Your task to perform on an android device: Go to network settings Image 0: 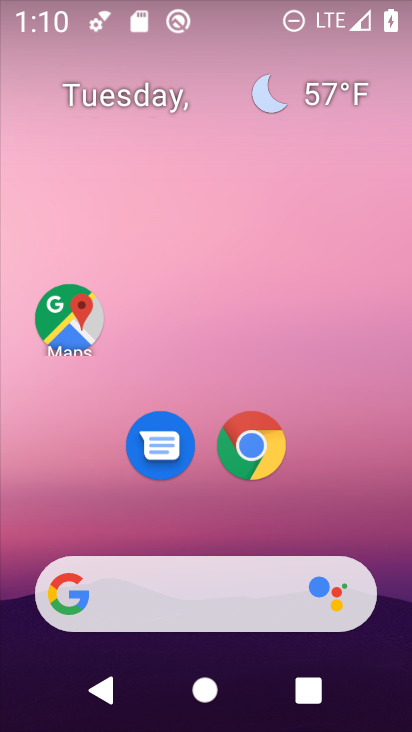
Step 0: drag from (386, 552) to (381, 218)
Your task to perform on an android device: Go to network settings Image 1: 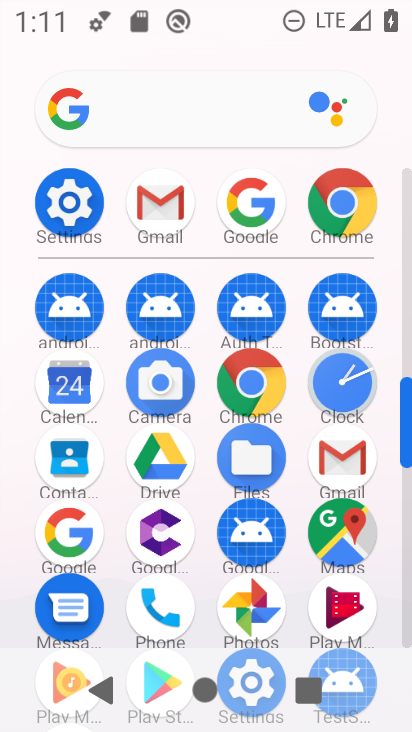
Step 1: drag from (378, 608) to (392, 332)
Your task to perform on an android device: Go to network settings Image 2: 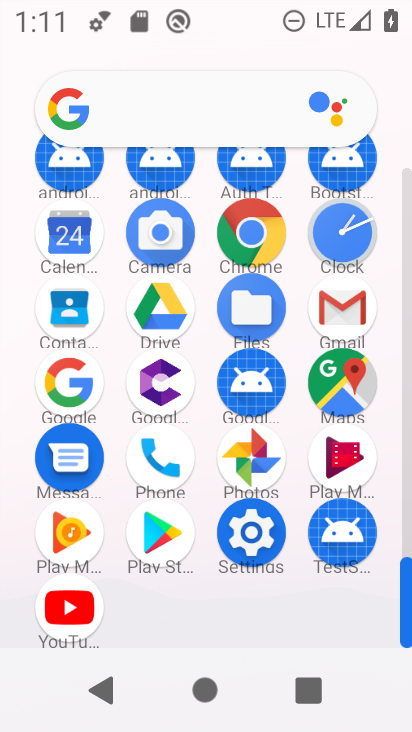
Step 2: click (247, 546)
Your task to perform on an android device: Go to network settings Image 3: 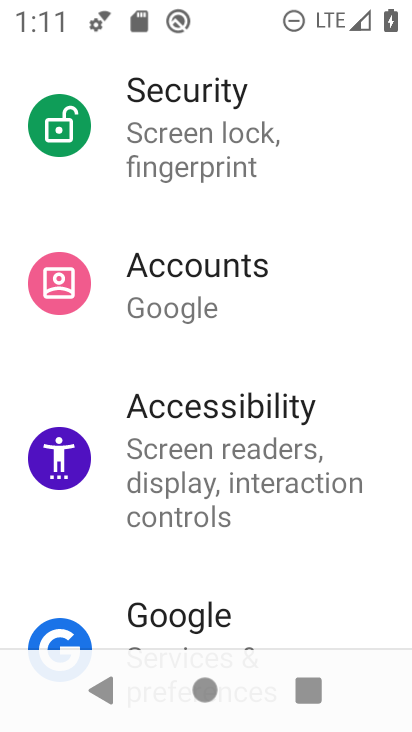
Step 3: drag from (340, 344) to (349, 441)
Your task to perform on an android device: Go to network settings Image 4: 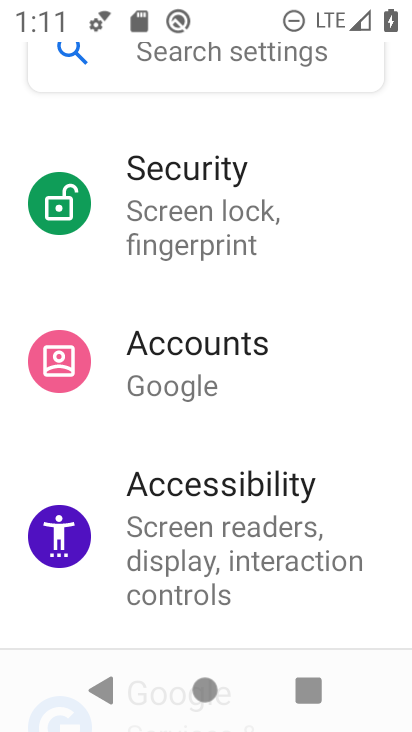
Step 4: drag from (336, 287) to (348, 423)
Your task to perform on an android device: Go to network settings Image 5: 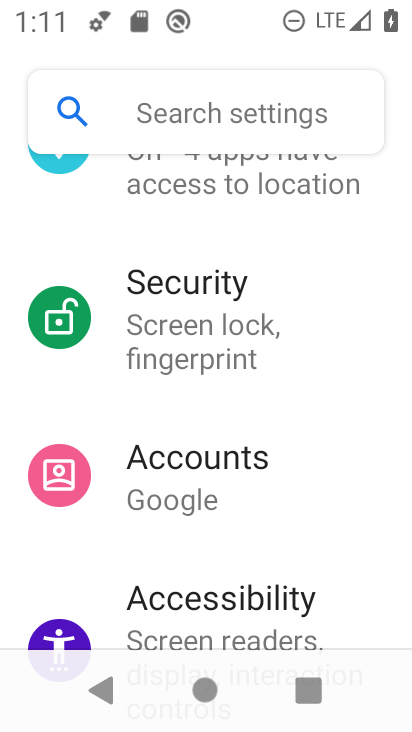
Step 5: drag from (361, 261) to (366, 358)
Your task to perform on an android device: Go to network settings Image 6: 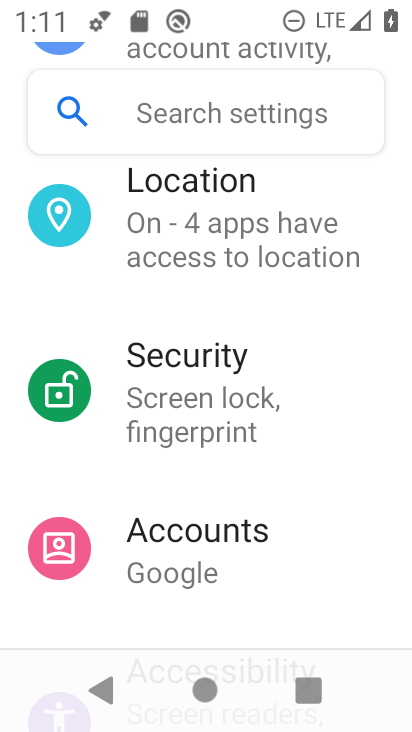
Step 6: drag from (376, 227) to (368, 352)
Your task to perform on an android device: Go to network settings Image 7: 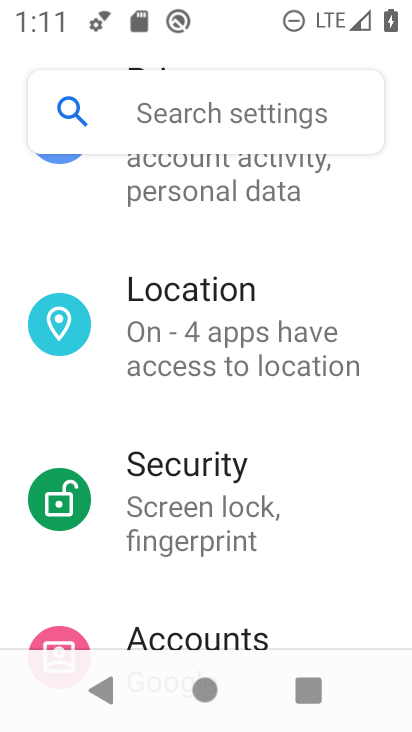
Step 7: drag from (365, 223) to (362, 347)
Your task to perform on an android device: Go to network settings Image 8: 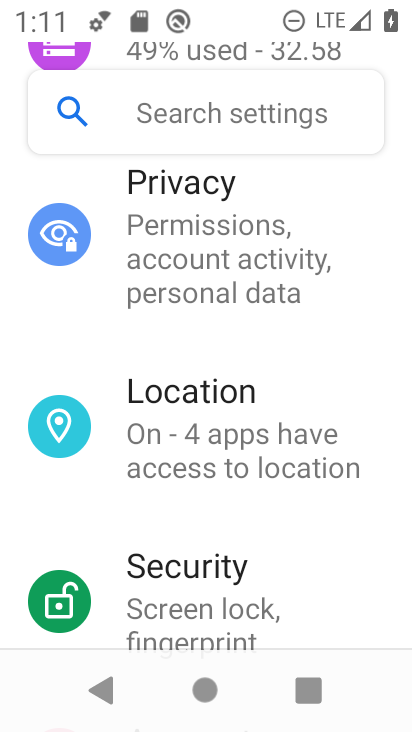
Step 8: drag from (366, 211) to (363, 335)
Your task to perform on an android device: Go to network settings Image 9: 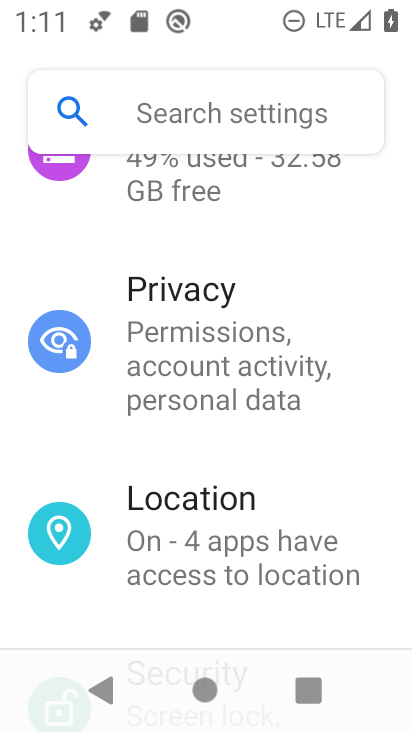
Step 9: drag from (357, 207) to (349, 331)
Your task to perform on an android device: Go to network settings Image 10: 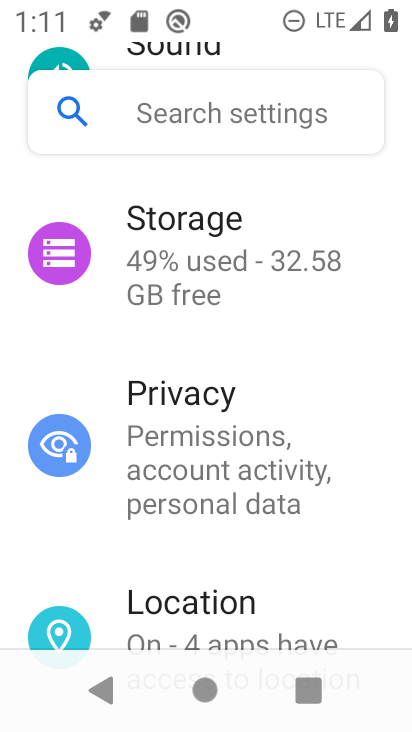
Step 10: drag from (357, 197) to (371, 323)
Your task to perform on an android device: Go to network settings Image 11: 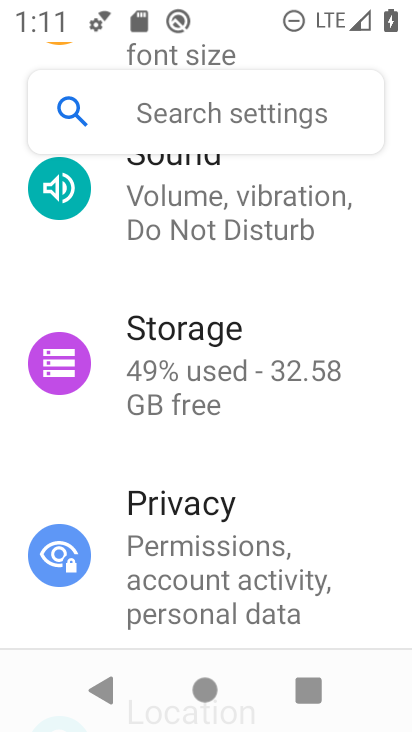
Step 11: drag from (379, 190) to (360, 327)
Your task to perform on an android device: Go to network settings Image 12: 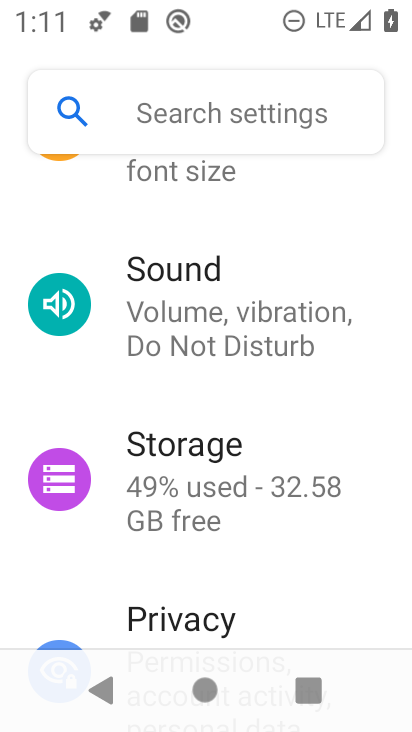
Step 12: drag from (359, 174) to (374, 314)
Your task to perform on an android device: Go to network settings Image 13: 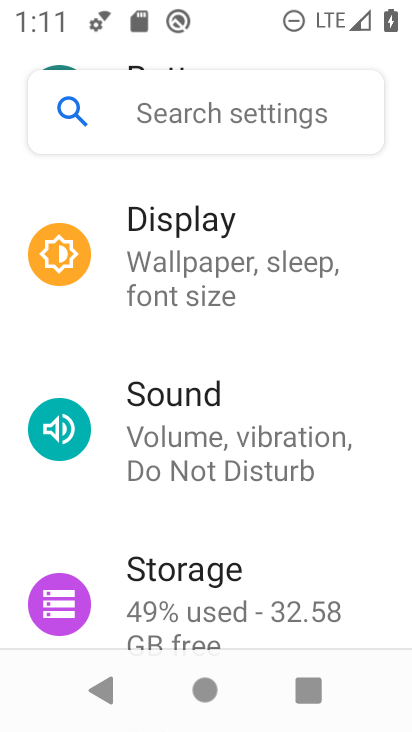
Step 13: drag from (385, 165) to (362, 290)
Your task to perform on an android device: Go to network settings Image 14: 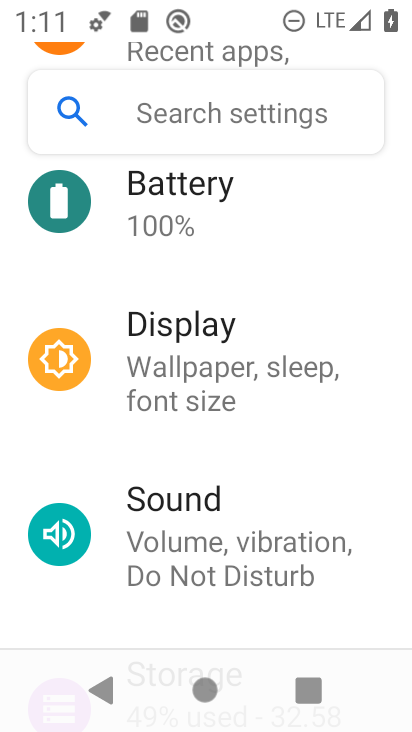
Step 14: drag from (353, 196) to (354, 319)
Your task to perform on an android device: Go to network settings Image 15: 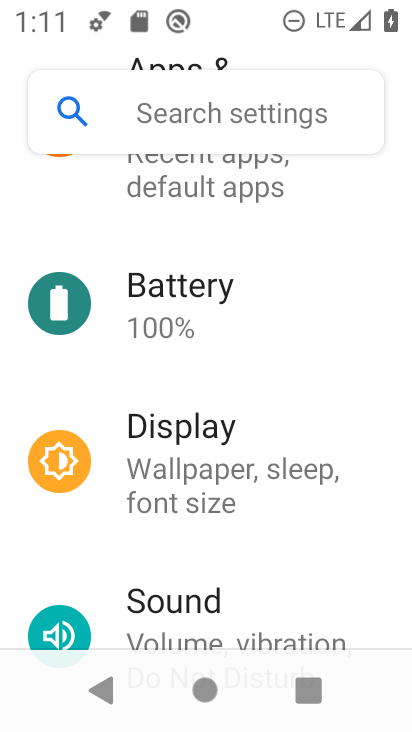
Step 15: drag from (360, 226) to (367, 356)
Your task to perform on an android device: Go to network settings Image 16: 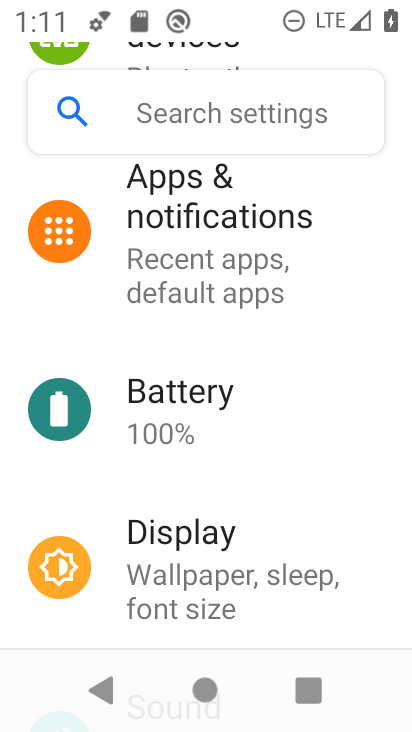
Step 16: drag from (369, 213) to (356, 370)
Your task to perform on an android device: Go to network settings Image 17: 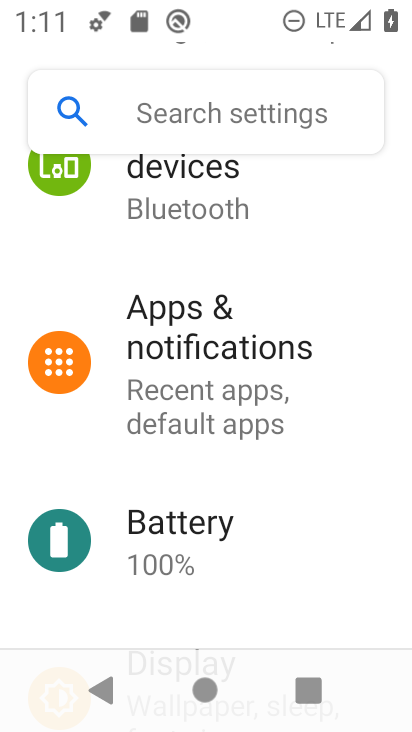
Step 17: drag from (341, 193) to (348, 331)
Your task to perform on an android device: Go to network settings Image 18: 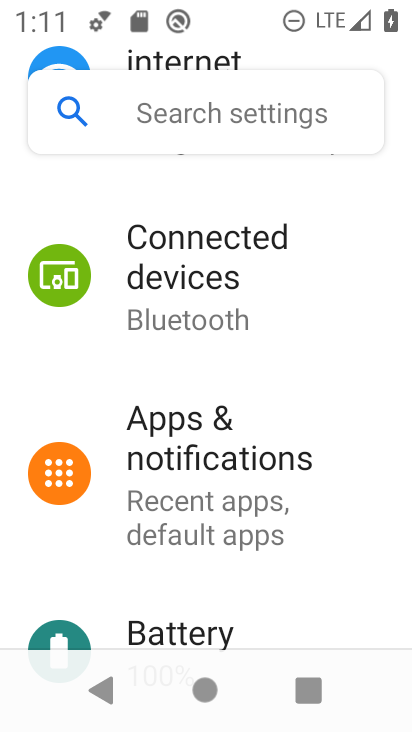
Step 18: drag from (370, 167) to (355, 309)
Your task to perform on an android device: Go to network settings Image 19: 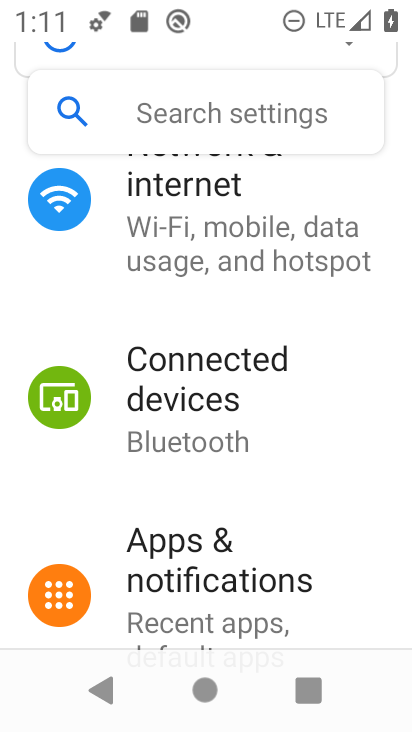
Step 19: click (322, 247)
Your task to perform on an android device: Go to network settings Image 20: 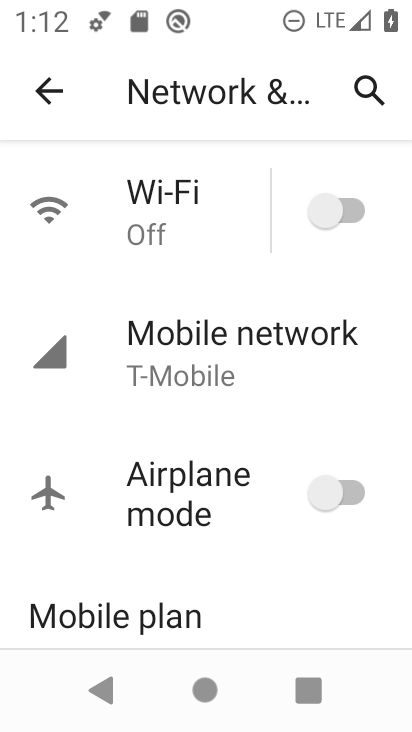
Step 20: task complete